Your task to perform on an android device: Find coffee shops on Maps Image 0: 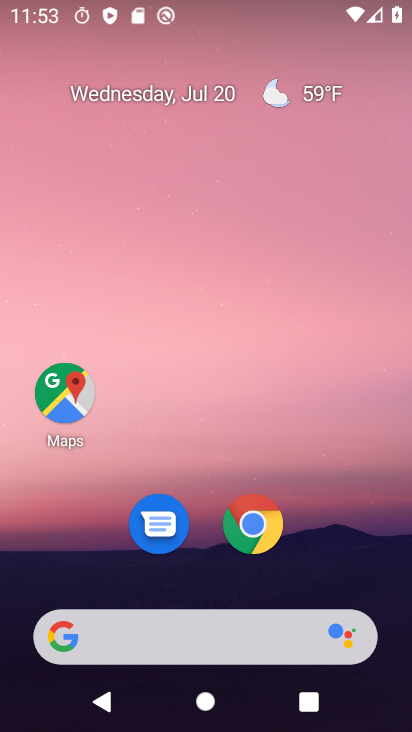
Step 0: press home button
Your task to perform on an android device: Find coffee shops on Maps Image 1: 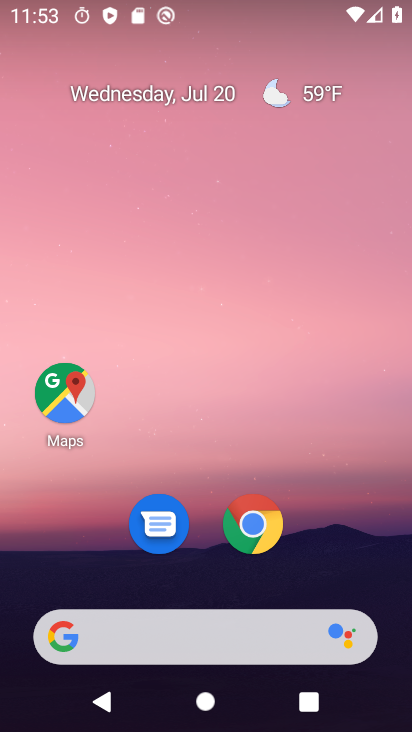
Step 1: click (69, 393)
Your task to perform on an android device: Find coffee shops on Maps Image 2: 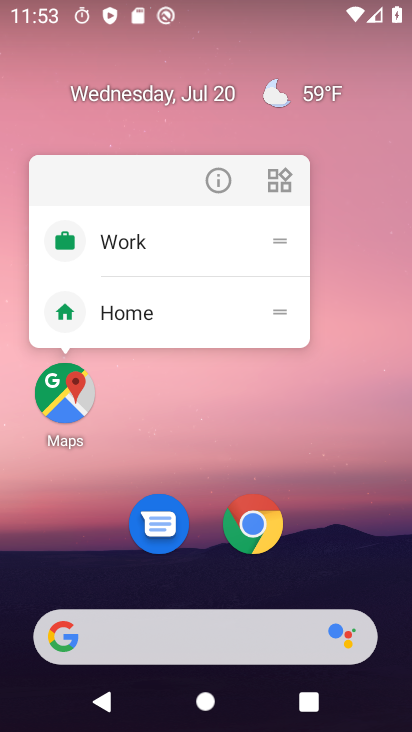
Step 2: click (68, 387)
Your task to perform on an android device: Find coffee shops on Maps Image 3: 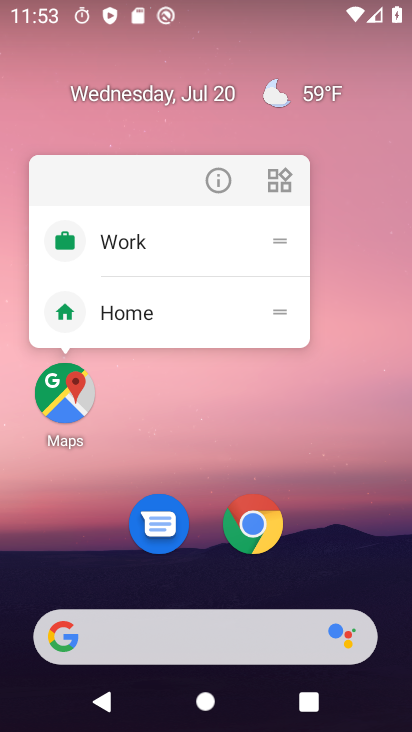
Step 3: click (67, 392)
Your task to perform on an android device: Find coffee shops on Maps Image 4: 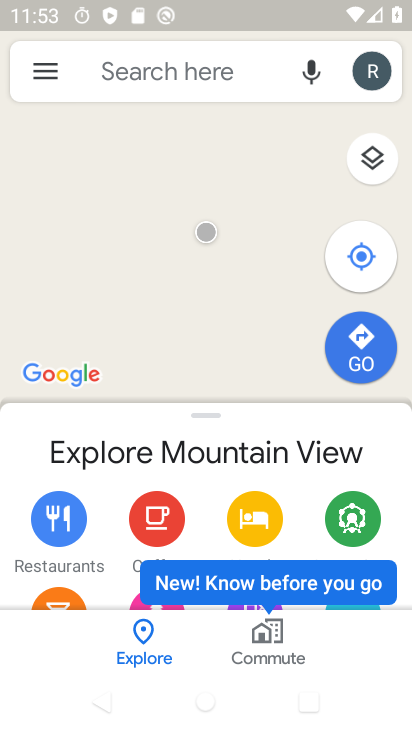
Step 4: click (129, 75)
Your task to perform on an android device: Find coffee shops on Maps Image 5: 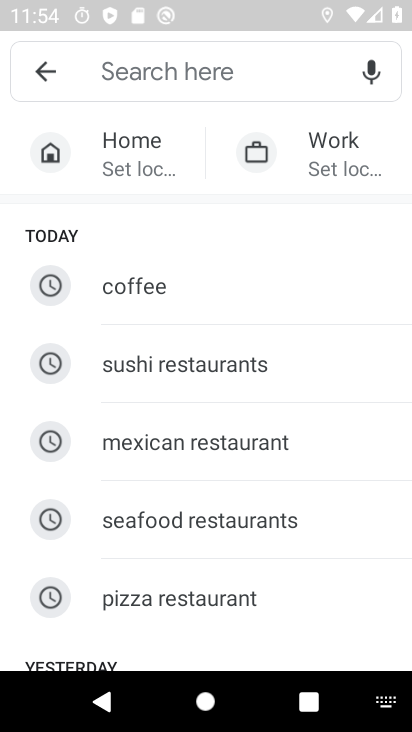
Step 5: click (131, 290)
Your task to perform on an android device: Find coffee shops on Maps Image 6: 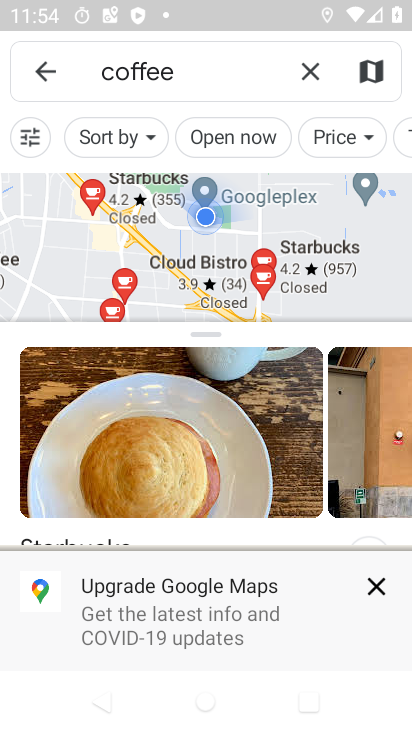
Step 6: click (377, 589)
Your task to perform on an android device: Find coffee shops on Maps Image 7: 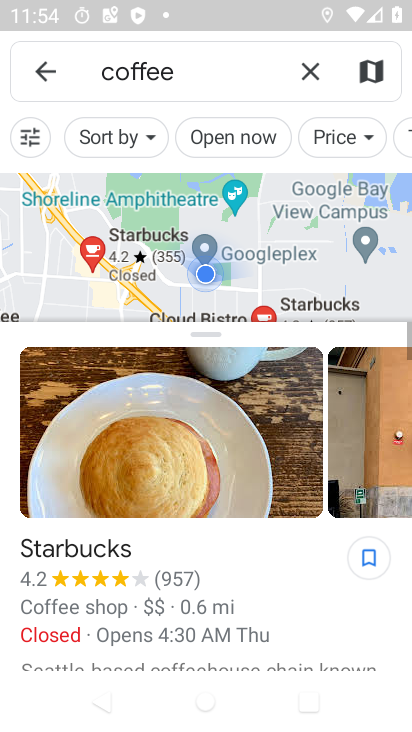
Step 7: task complete